Your task to perform on an android device: turn on data saver in the chrome app Image 0: 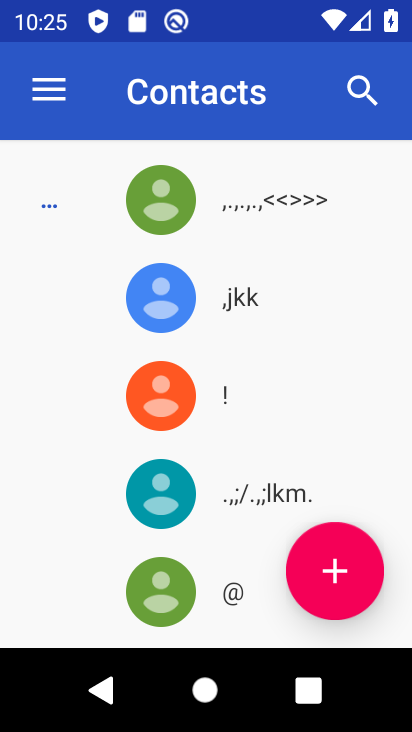
Step 0: press home button
Your task to perform on an android device: turn on data saver in the chrome app Image 1: 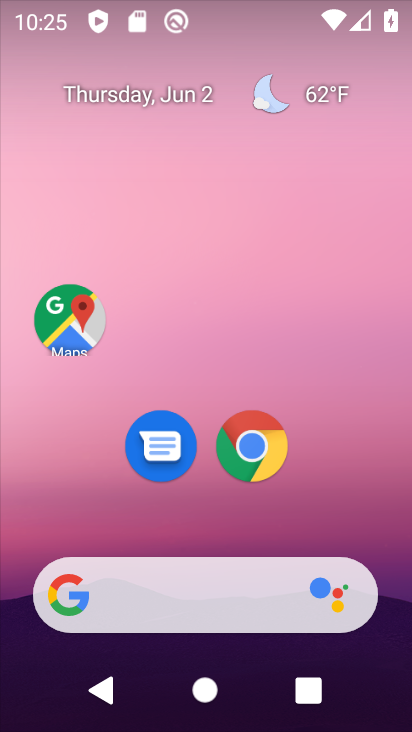
Step 1: click (256, 445)
Your task to perform on an android device: turn on data saver in the chrome app Image 2: 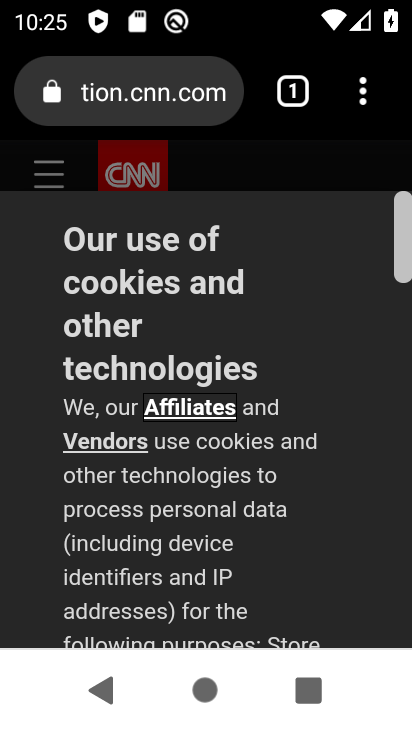
Step 2: drag from (372, 84) to (182, 472)
Your task to perform on an android device: turn on data saver in the chrome app Image 3: 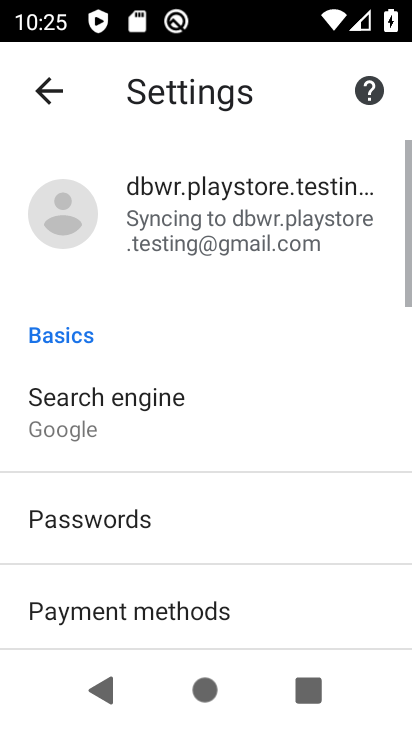
Step 3: drag from (262, 477) to (257, 100)
Your task to perform on an android device: turn on data saver in the chrome app Image 4: 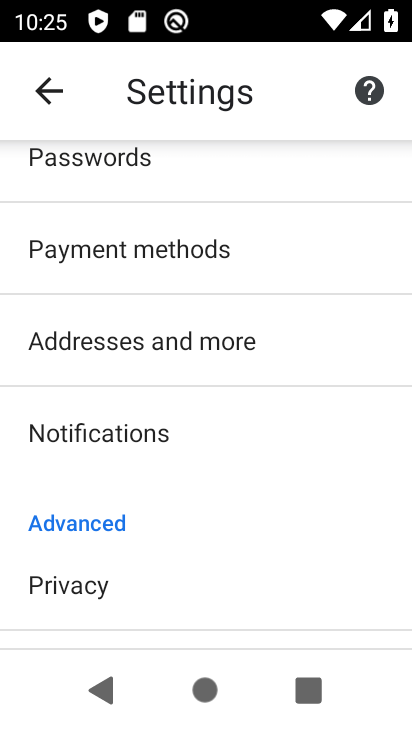
Step 4: drag from (186, 510) to (252, 189)
Your task to perform on an android device: turn on data saver in the chrome app Image 5: 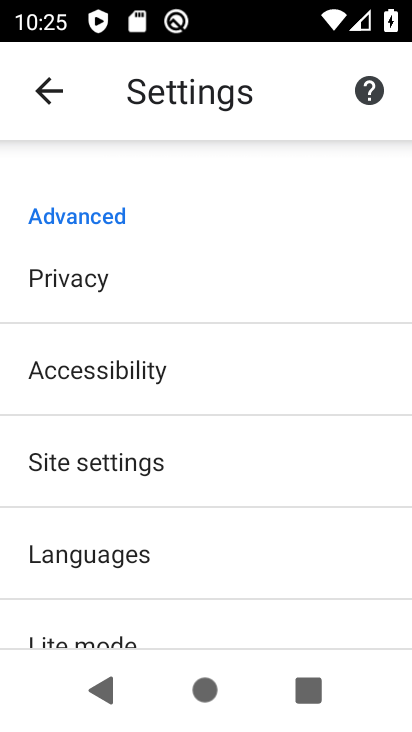
Step 5: drag from (227, 534) to (271, 260)
Your task to perform on an android device: turn on data saver in the chrome app Image 6: 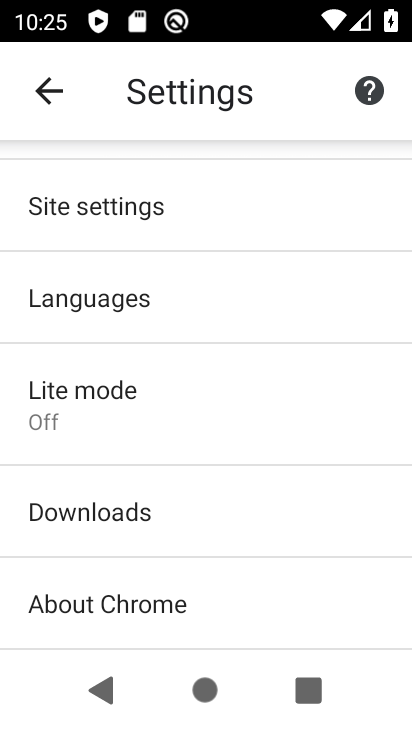
Step 6: click (133, 428)
Your task to perform on an android device: turn on data saver in the chrome app Image 7: 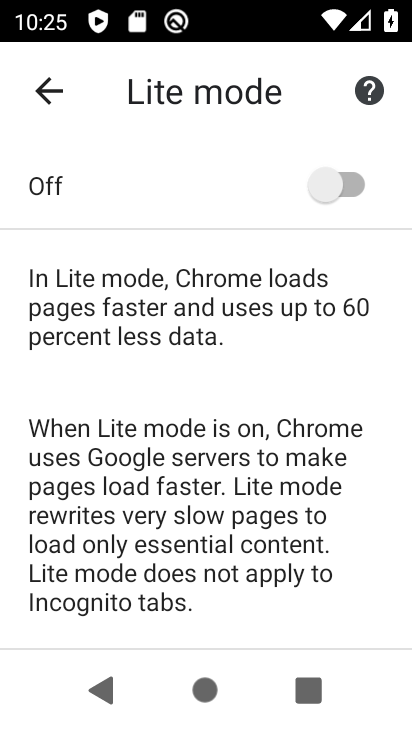
Step 7: click (363, 180)
Your task to perform on an android device: turn on data saver in the chrome app Image 8: 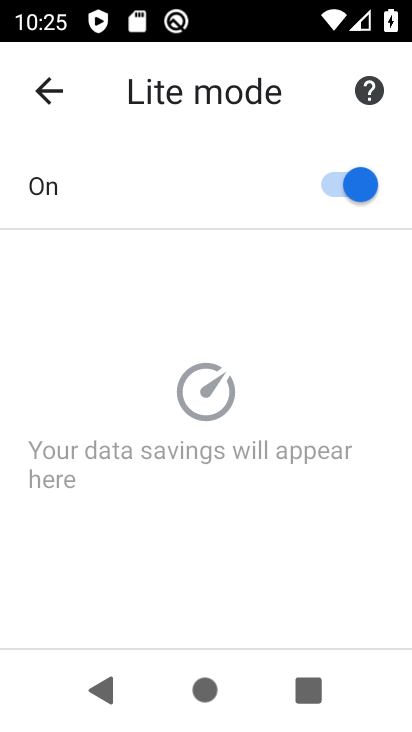
Step 8: task complete